Your task to perform on an android device: open chrome and create a bookmark for the current page Image 0: 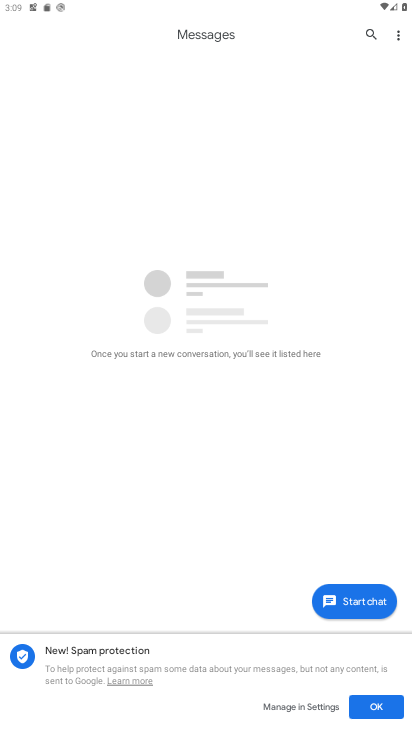
Step 0: press home button
Your task to perform on an android device: open chrome and create a bookmark for the current page Image 1: 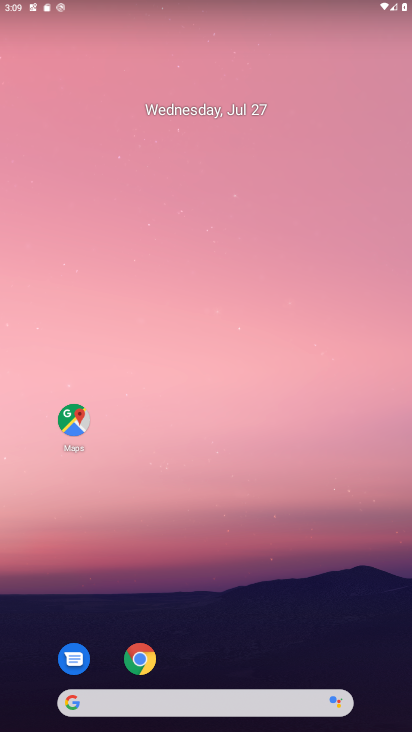
Step 1: drag from (241, 602) to (177, 204)
Your task to perform on an android device: open chrome and create a bookmark for the current page Image 2: 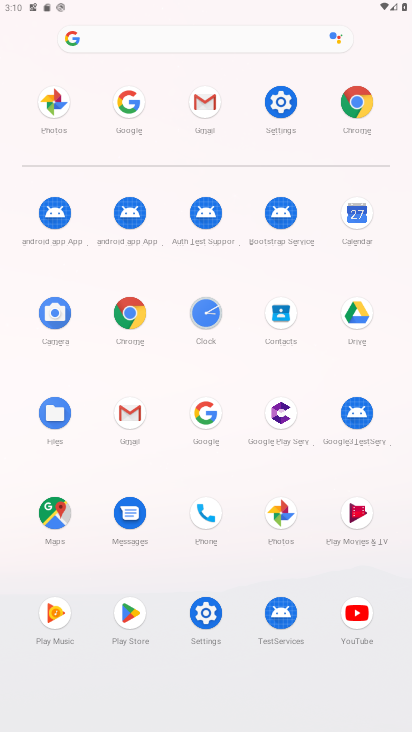
Step 2: click (355, 108)
Your task to perform on an android device: open chrome and create a bookmark for the current page Image 3: 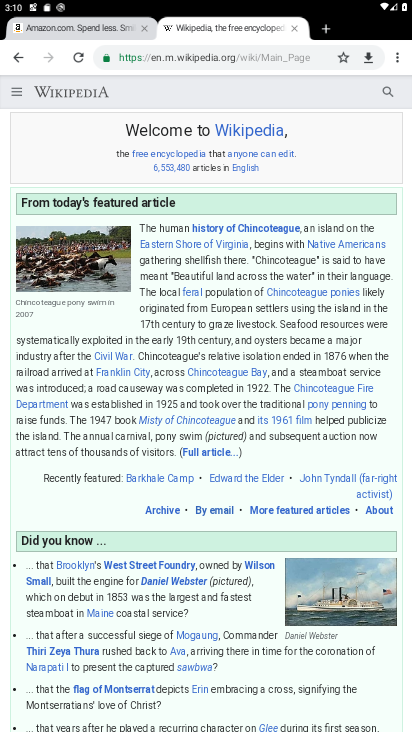
Step 3: drag from (403, 58) to (180, 141)
Your task to perform on an android device: open chrome and create a bookmark for the current page Image 4: 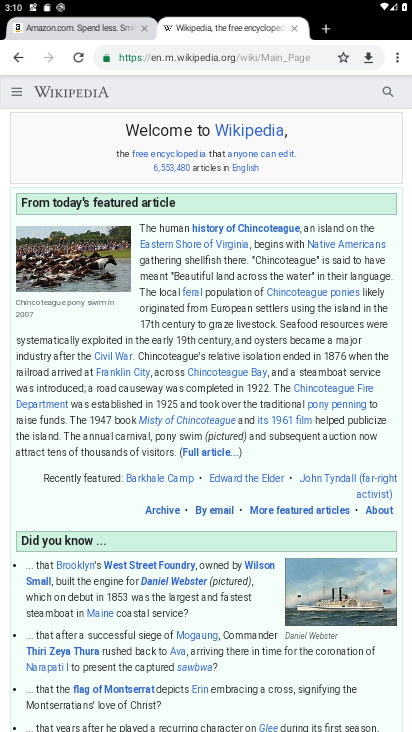
Step 4: click (336, 61)
Your task to perform on an android device: open chrome and create a bookmark for the current page Image 5: 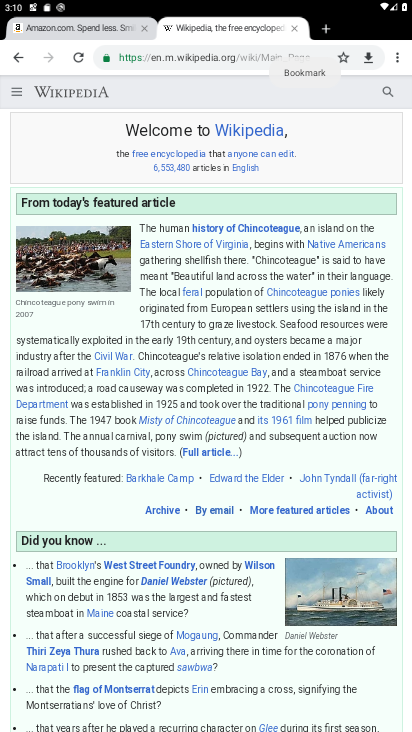
Step 5: click (350, 59)
Your task to perform on an android device: open chrome and create a bookmark for the current page Image 6: 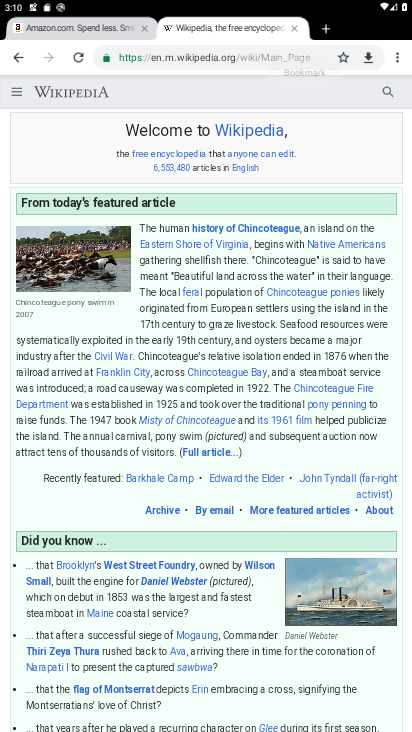
Step 6: click (335, 59)
Your task to perform on an android device: open chrome and create a bookmark for the current page Image 7: 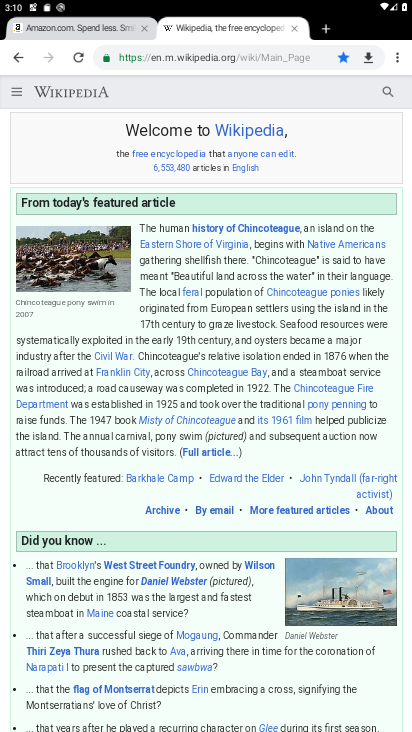
Step 7: task complete